Your task to perform on an android device: Go to eBay Image 0: 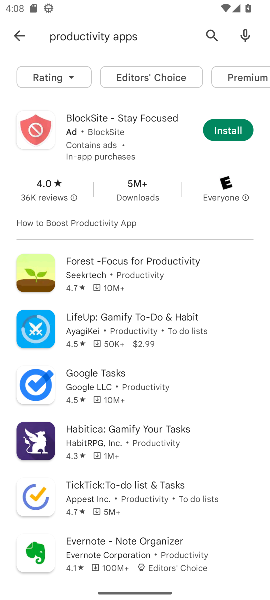
Step 0: click (15, 41)
Your task to perform on an android device: Go to eBay Image 1: 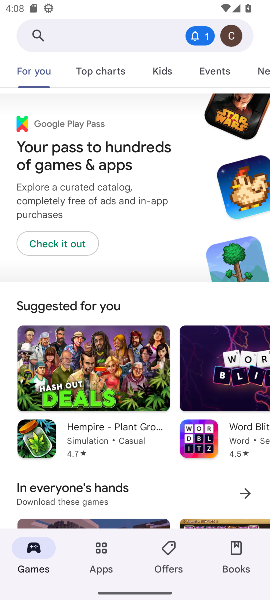
Step 1: click (234, 30)
Your task to perform on an android device: Go to eBay Image 2: 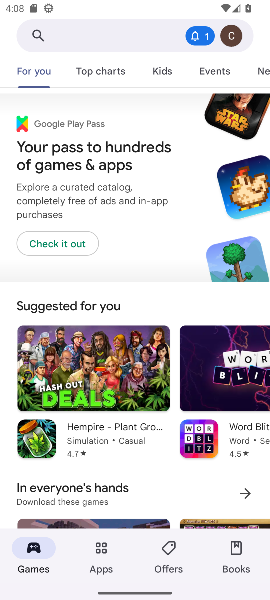
Step 2: click (234, 37)
Your task to perform on an android device: Go to eBay Image 3: 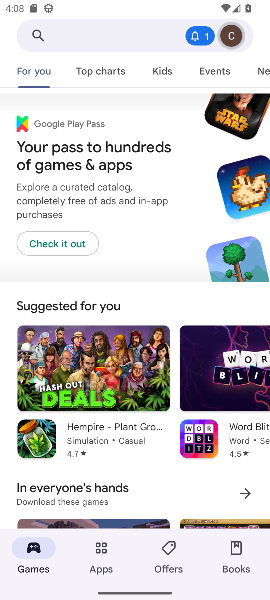
Step 3: click (235, 38)
Your task to perform on an android device: Go to eBay Image 4: 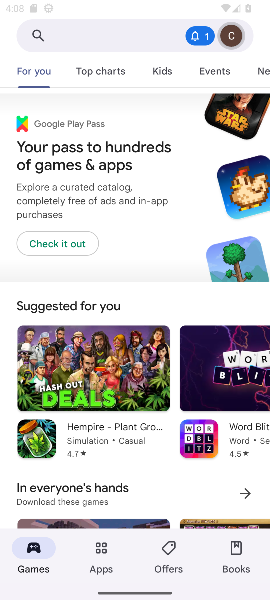
Step 4: drag from (235, 38) to (187, 243)
Your task to perform on an android device: Go to eBay Image 5: 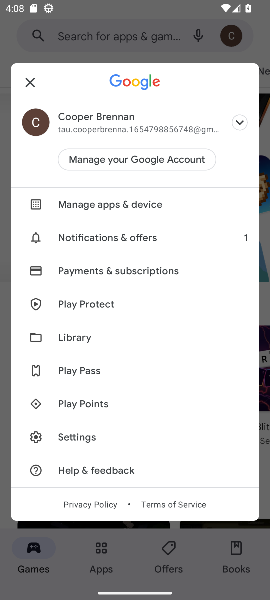
Step 5: click (85, 29)
Your task to perform on an android device: Go to eBay Image 6: 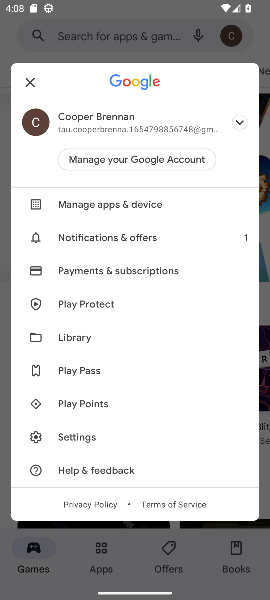
Step 6: click (84, 17)
Your task to perform on an android device: Go to eBay Image 7: 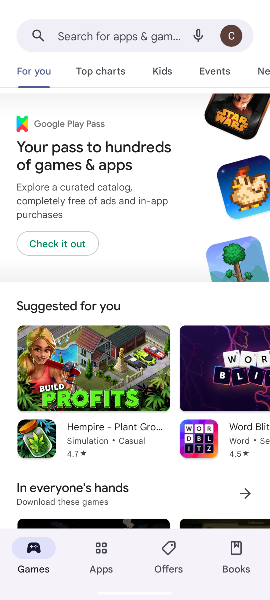
Step 7: click (86, 13)
Your task to perform on an android device: Go to eBay Image 8: 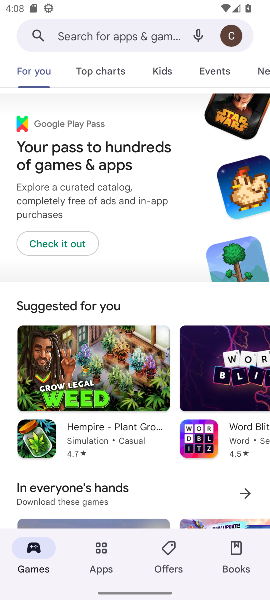
Step 8: press back button
Your task to perform on an android device: Go to eBay Image 9: 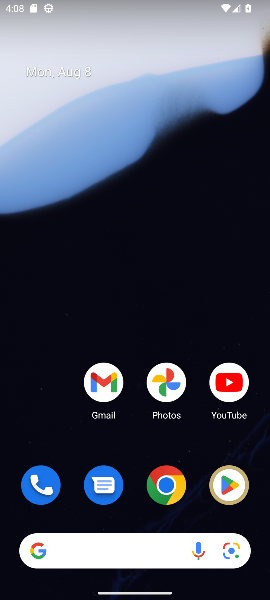
Step 9: drag from (108, 557) to (95, 207)
Your task to perform on an android device: Go to eBay Image 10: 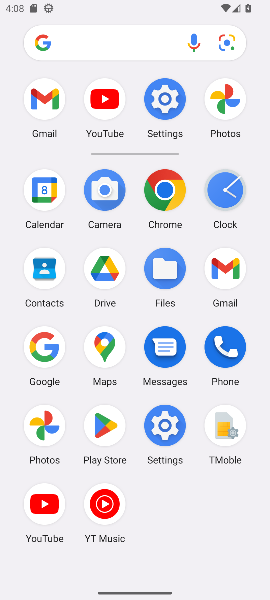
Step 10: click (169, 196)
Your task to perform on an android device: Go to eBay Image 11: 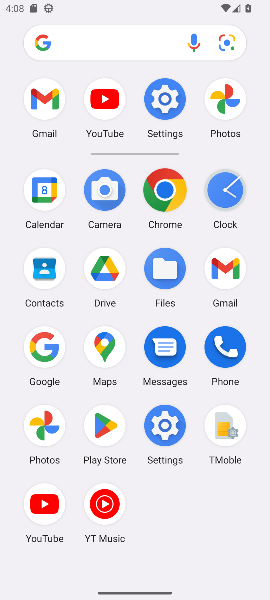
Step 11: click (163, 189)
Your task to perform on an android device: Go to eBay Image 12: 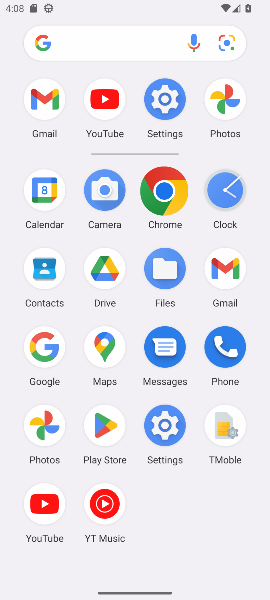
Step 12: click (163, 189)
Your task to perform on an android device: Go to eBay Image 13: 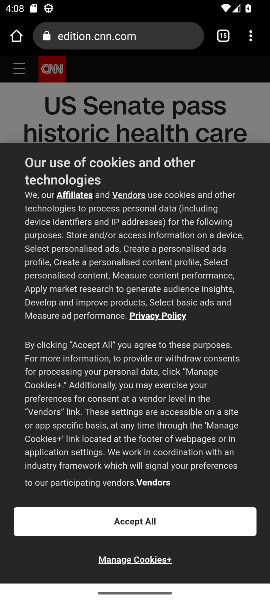
Step 13: drag from (251, 35) to (138, 71)
Your task to perform on an android device: Go to eBay Image 14: 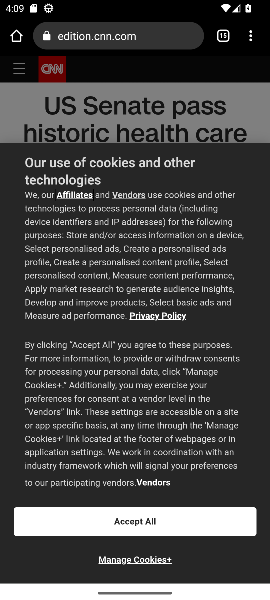
Step 14: click (140, 72)
Your task to perform on an android device: Go to eBay Image 15: 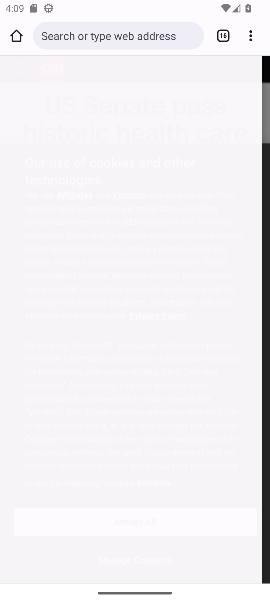
Step 15: click (140, 72)
Your task to perform on an android device: Go to eBay Image 16: 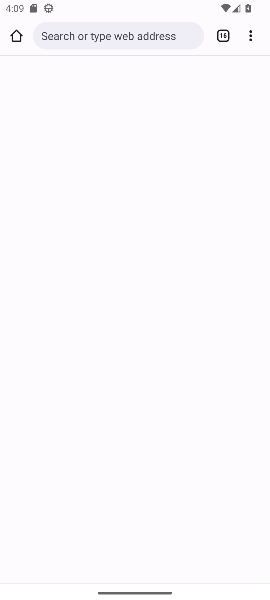
Step 16: click (140, 72)
Your task to perform on an android device: Go to eBay Image 17: 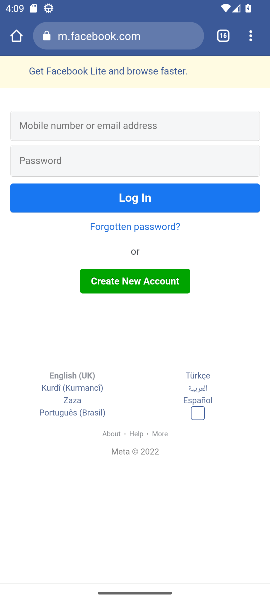
Step 17: press back button
Your task to perform on an android device: Go to eBay Image 18: 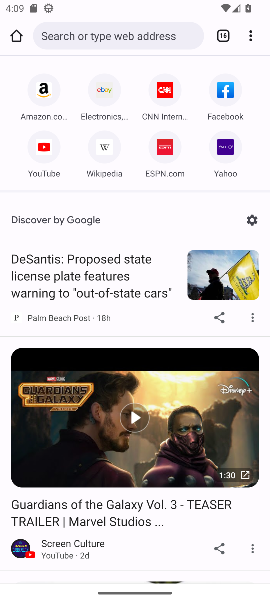
Step 18: click (96, 94)
Your task to perform on an android device: Go to eBay Image 19: 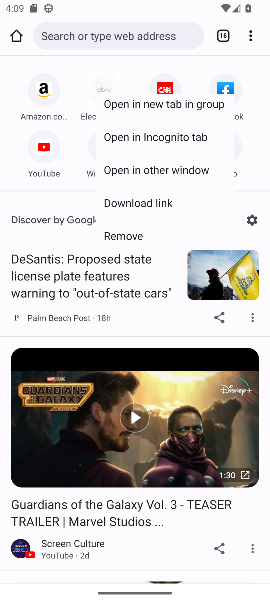
Step 19: click (93, 93)
Your task to perform on an android device: Go to eBay Image 20: 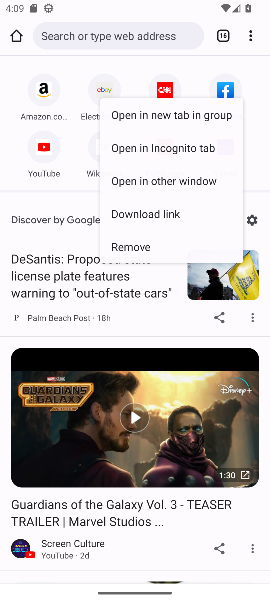
Step 20: click (99, 92)
Your task to perform on an android device: Go to eBay Image 21: 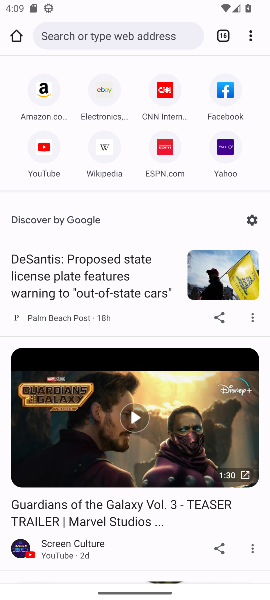
Step 21: click (104, 98)
Your task to perform on an android device: Go to eBay Image 22: 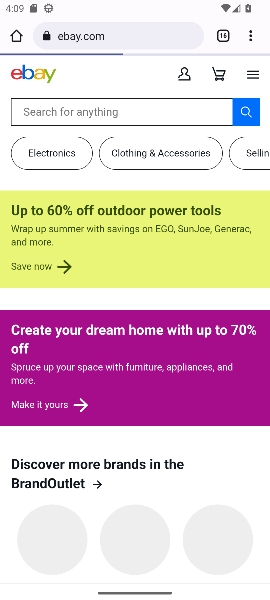
Step 22: click (104, 98)
Your task to perform on an android device: Go to eBay Image 23: 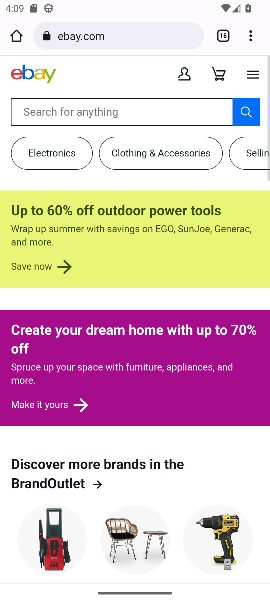
Step 23: click (105, 98)
Your task to perform on an android device: Go to eBay Image 24: 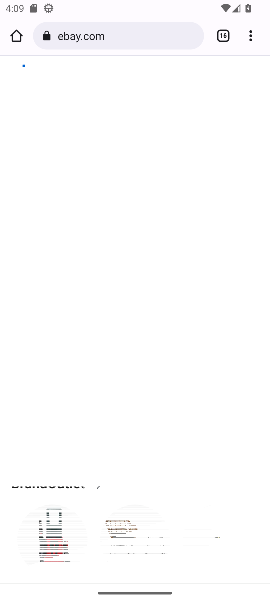
Step 24: task complete